Your task to perform on an android device: clear all cookies in the chrome app Image 0: 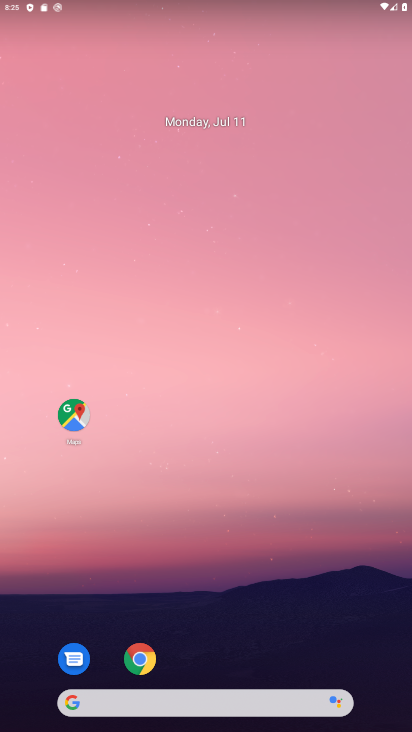
Step 0: click (158, 660)
Your task to perform on an android device: clear all cookies in the chrome app Image 1: 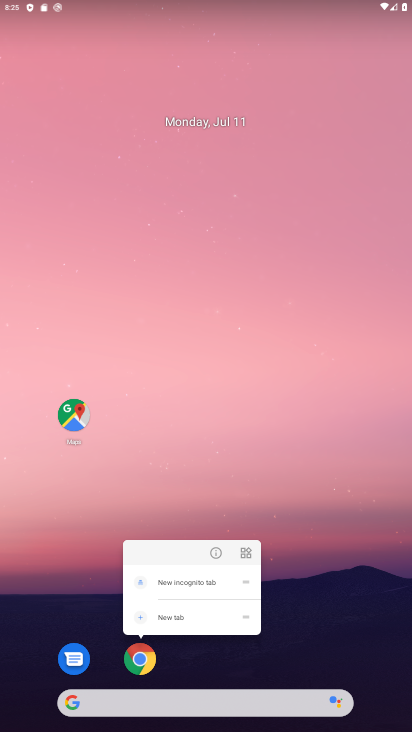
Step 1: click (143, 650)
Your task to perform on an android device: clear all cookies in the chrome app Image 2: 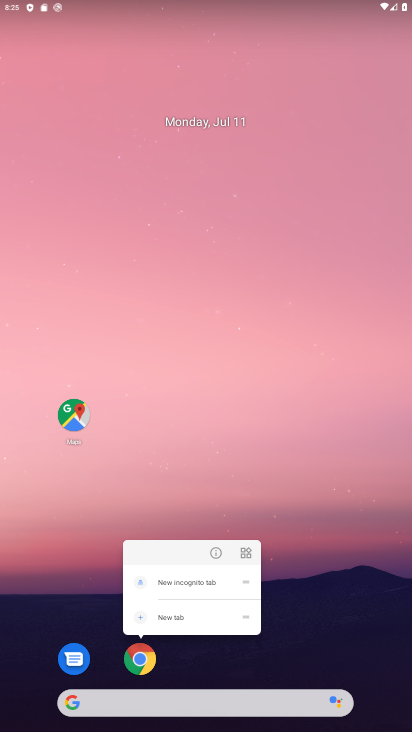
Step 2: task complete